Your task to perform on an android device: open app "Duolingo: language lessons" (install if not already installed) and go to login screen Image 0: 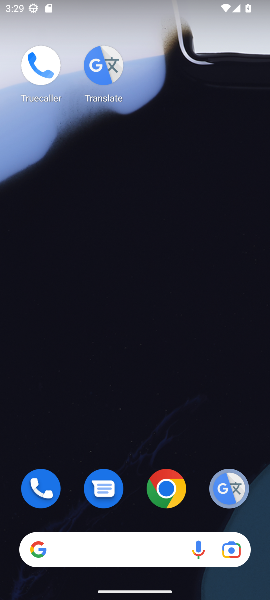
Step 0: drag from (135, 510) to (105, 54)
Your task to perform on an android device: open app "Duolingo: language lessons" (install if not already installed) and go to login screen Image 1: 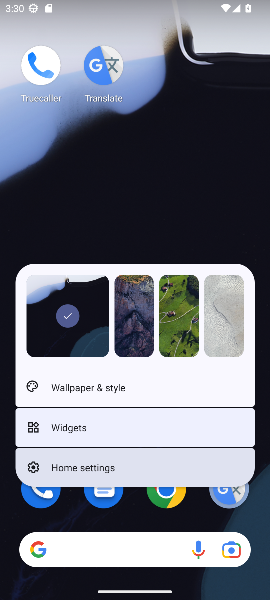
Step 1: click (183, 144)
Your task to perform on an android device: open app "Duolingo: language lessons" (install if not already installed) and go to login screen Image 2: 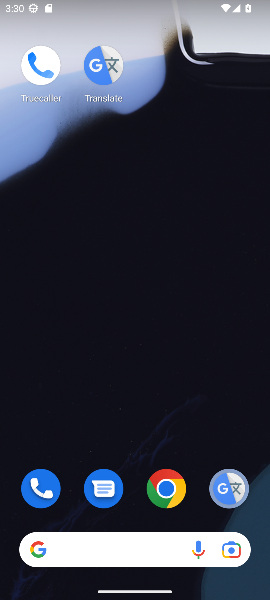
Step 2: drag from (134, 528) to (104, 116)
Your task to perform on an android device: open app "Duolingo: language lessons" (install if not already installed) and go to login screen Image 3: 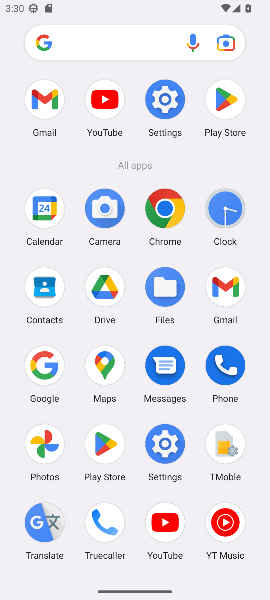
Step 3: click (220, 111)
Your task to perform on an android device: open app "Duolingo: language lessons" (install if not already installed) and go to login screen Image 4: 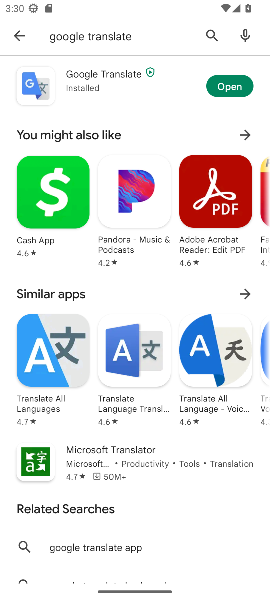
Step 4: click (215, 33)
Your task to perform on an android device: open app "Duolingo: language lessons" (install if not already installed) and go to login screen Image 5: 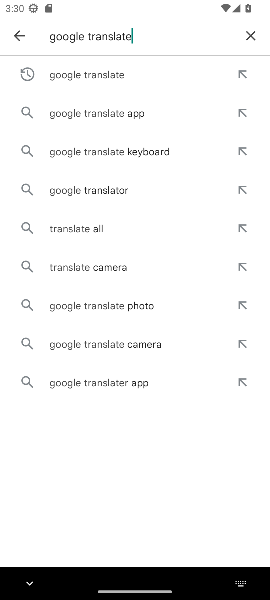
Step 5: click (252, 38)
Your task to perform on an android device: open app "Duolingo: language lessons" (install if not already installed) and go to login screen Image 6: 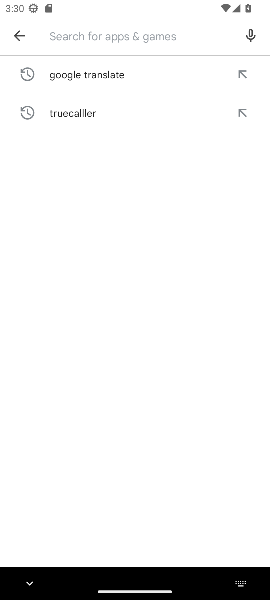
Step 6: type "duolingo"
Your task to perform on an android device: open app "Duolingo: language lessons" (install if not already installed) and go to login screen Image 7: 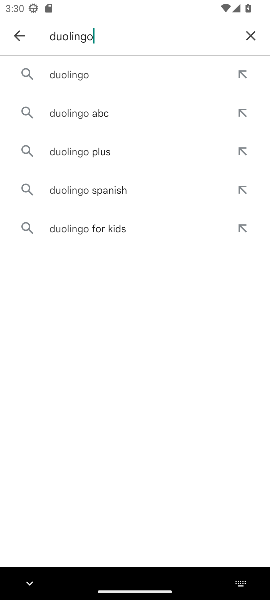
Step 7: click (106, 60)
Your task to perform on an android device: open app "Duolingo: language lessons" (install if not already installed) and go to login screen Image 8: 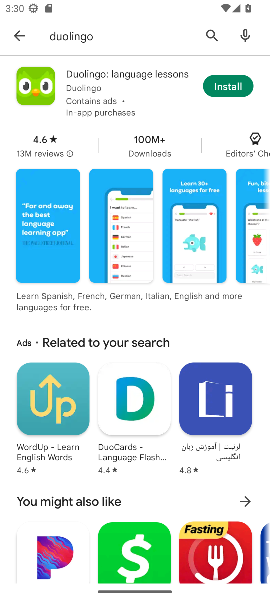
Step 8: click (226, 89)
Your task to perform on an android device: open app "Duolingo: language lessons" (install if not already installed) and go to login screen Image 9: 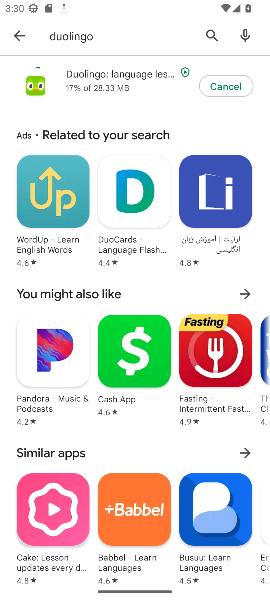
Step 9: task complete